Your task to perform on an android device: turn on javascript in the chrome app Image 0: 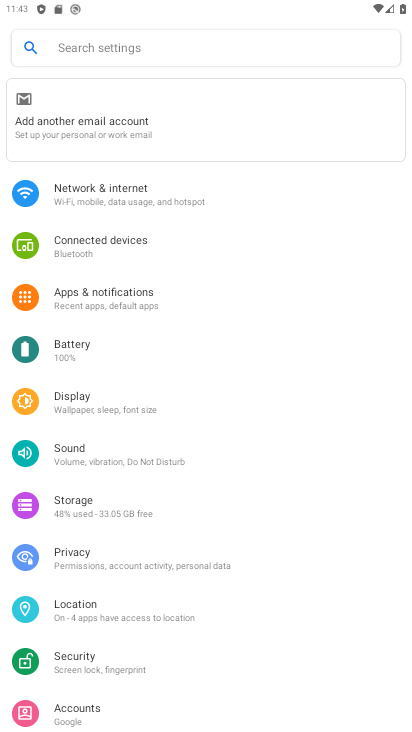
Step 0: press home button
Your task to perform on an android device: turn on javascript in the chrome app Image 1: 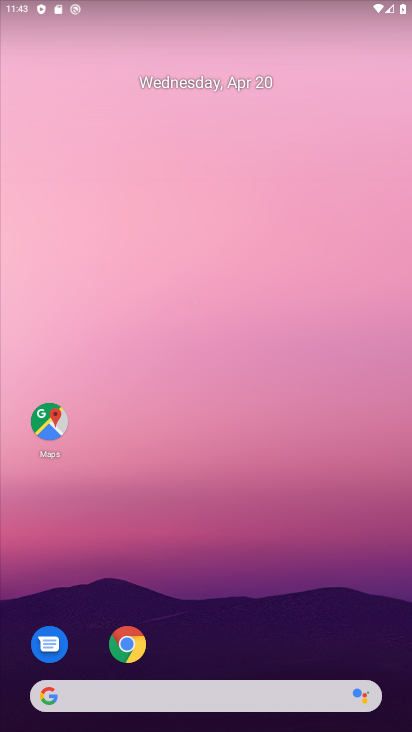
Step 1: click (129, 644)
Your task to perform on an android device: turn on javascript in the chrome app Image 2: 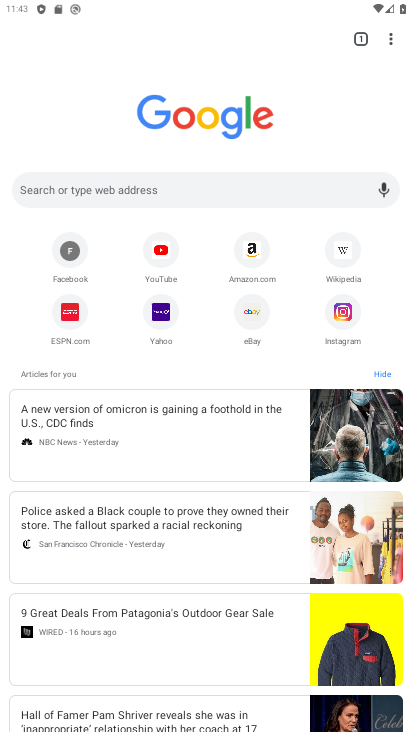
Step 2: click (388, 41)
Your task to perform on an android device: turn on javascript in the chrome app Image 3: 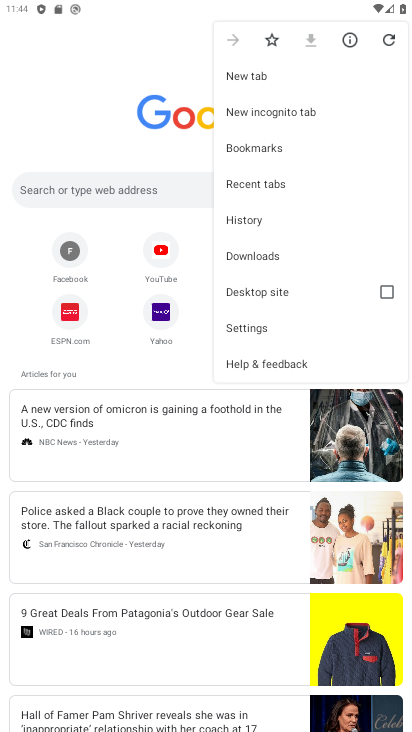
Step 3: click (246, 327)
Your task to perform on an android device: turn on javascript in the chrome app Image 4: 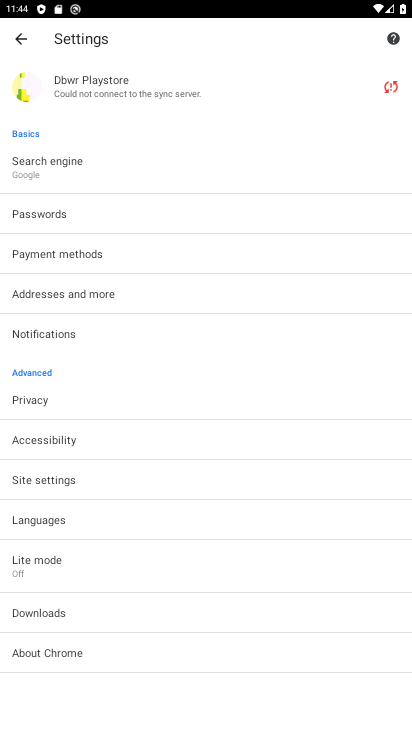
Step 4: click (49, 478)
Your task to perform on an android device: turn on javascript in the chrome app Image 5: 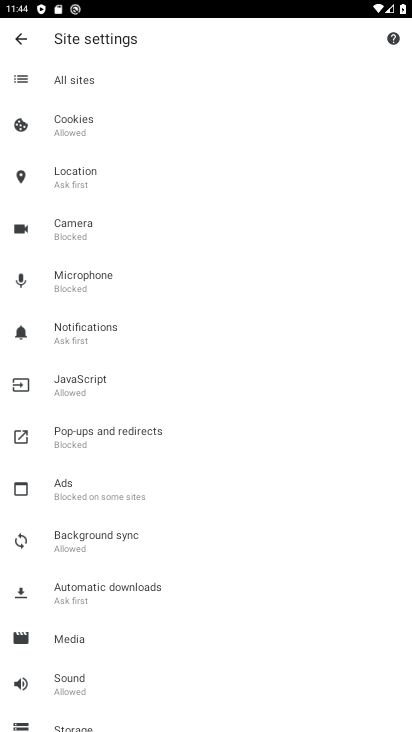
Step 5: click (71, 382)
Your task to perform on an android device: turn on javascript in the chrome app Image 6: 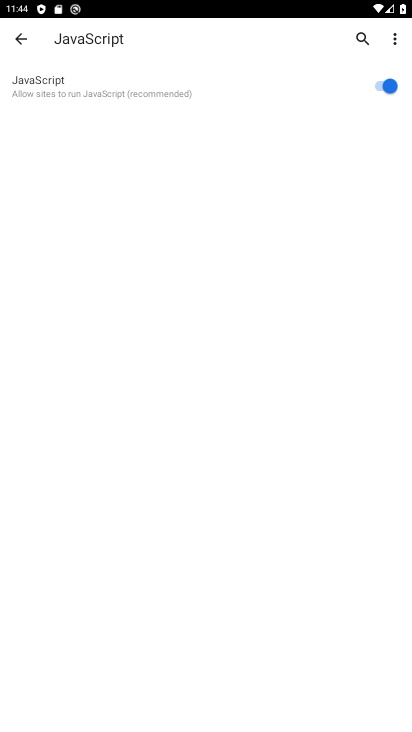
Step 6: task complete